Your task to perform on an android device: Clear all items from cart on costco.com. Add sony triple a to the cart on costco.com Image 0: 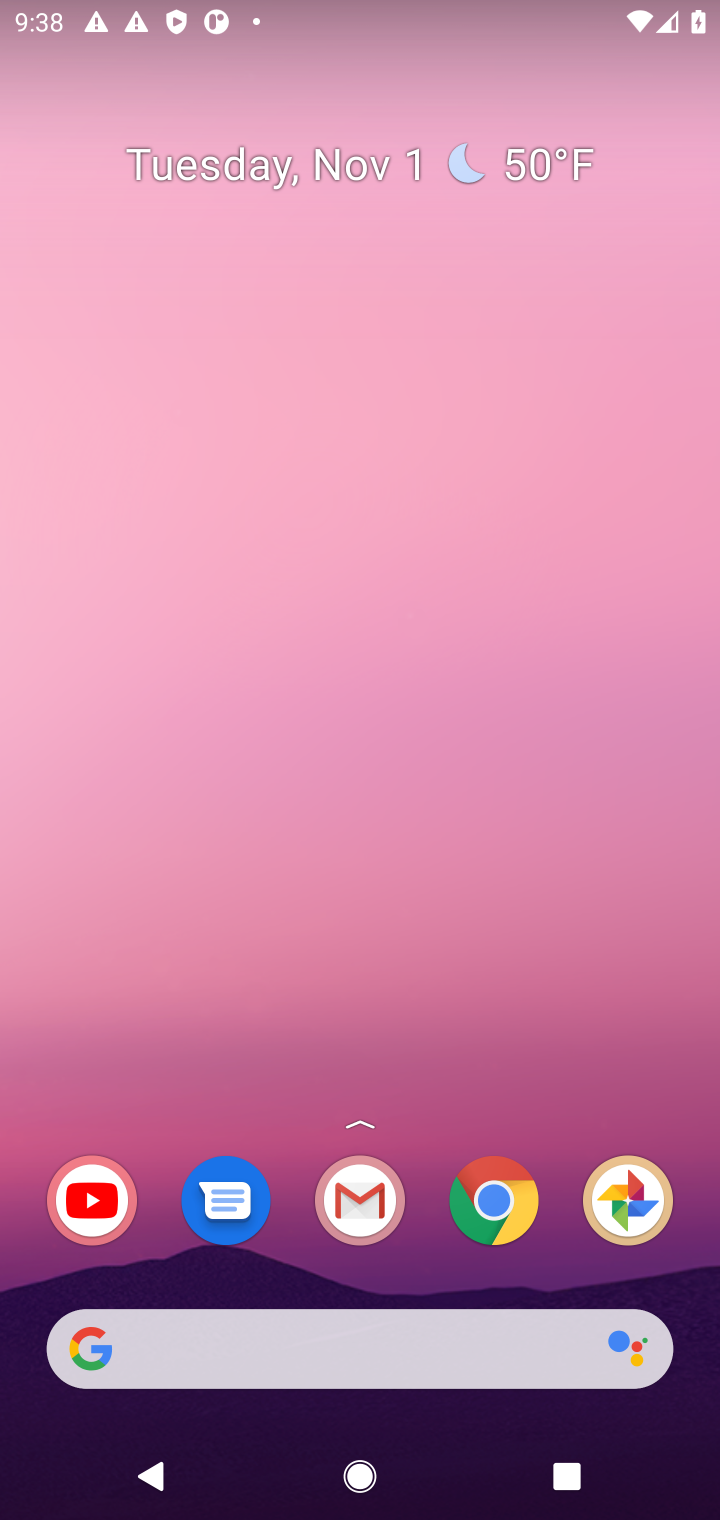
Step 0: click (258, 1355)
Your task to perform on an android device: Clear all items from cart on costco.com. Add sony triple a to the cart on costco.com Image 1: 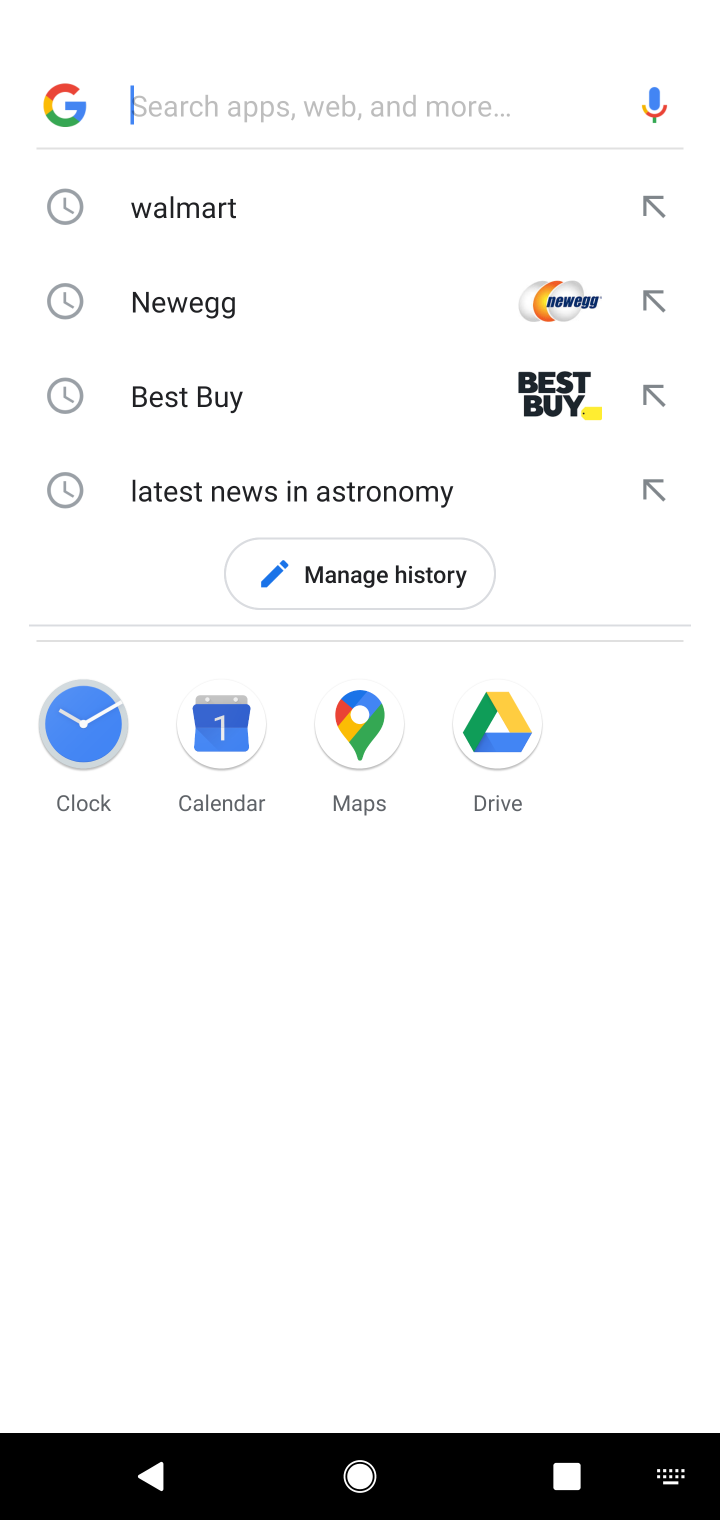
Step 1: type "costco.com"
Your task to perform on an android device: Clear all items from cart on costco.com. Add sony triple a to the cart on costco.com Image 2: 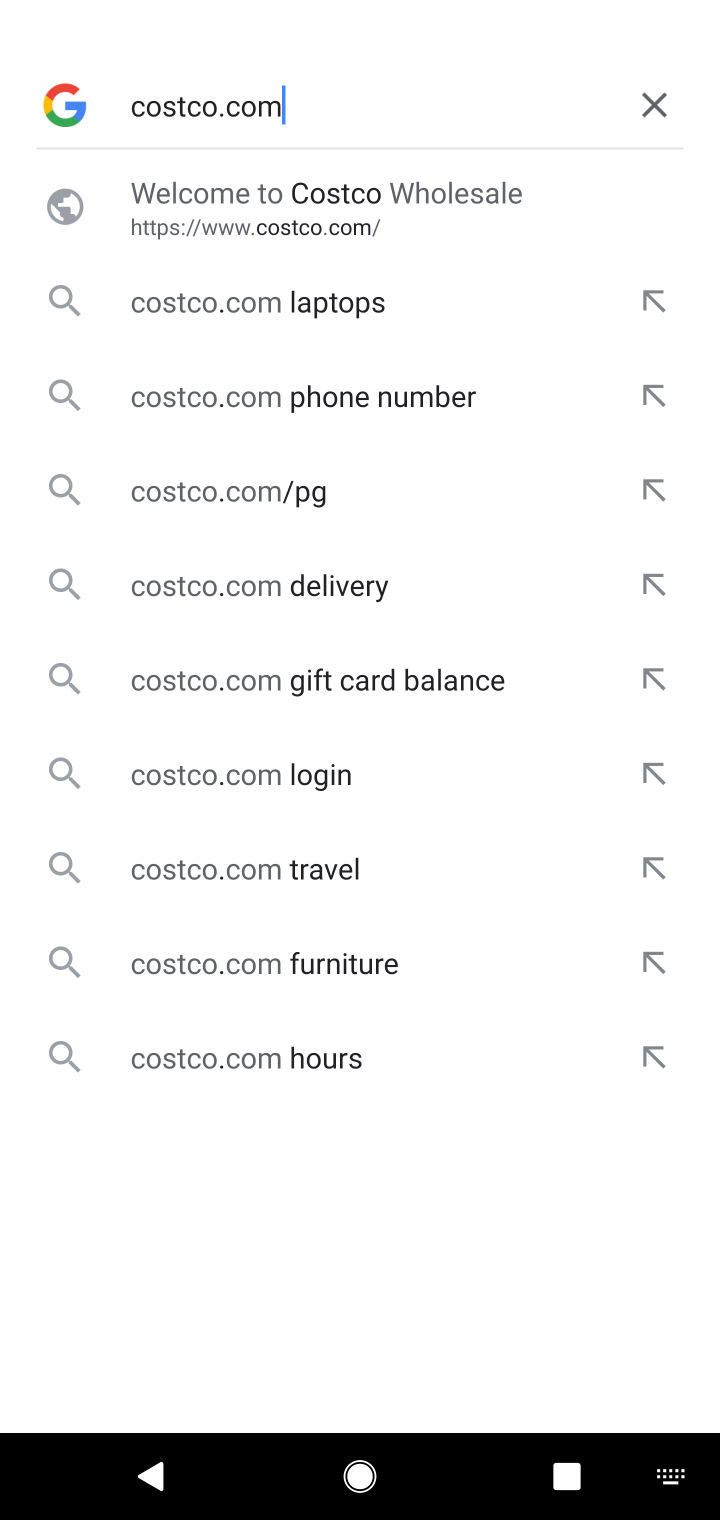
Step 2: click (290, 179)
Your task to perform on an android device: Clear all items from cart on costco.com. Add sony triple a to the cart on costco.com Image 3: 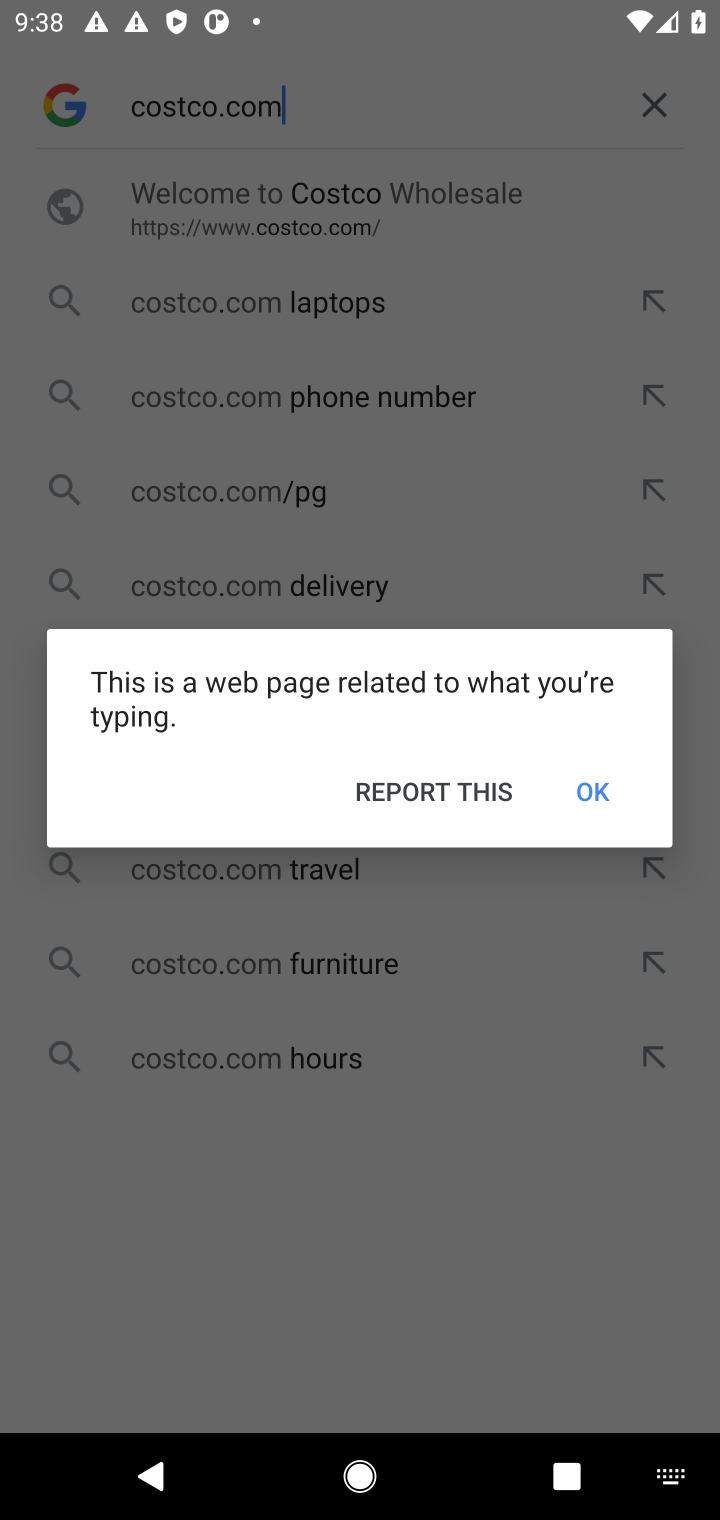
Step 3: click (611, 802)
Your task to perform on an android device: Clear all items from cart on costco.com. Add sony triple a to the cart on costco.com Image 4: 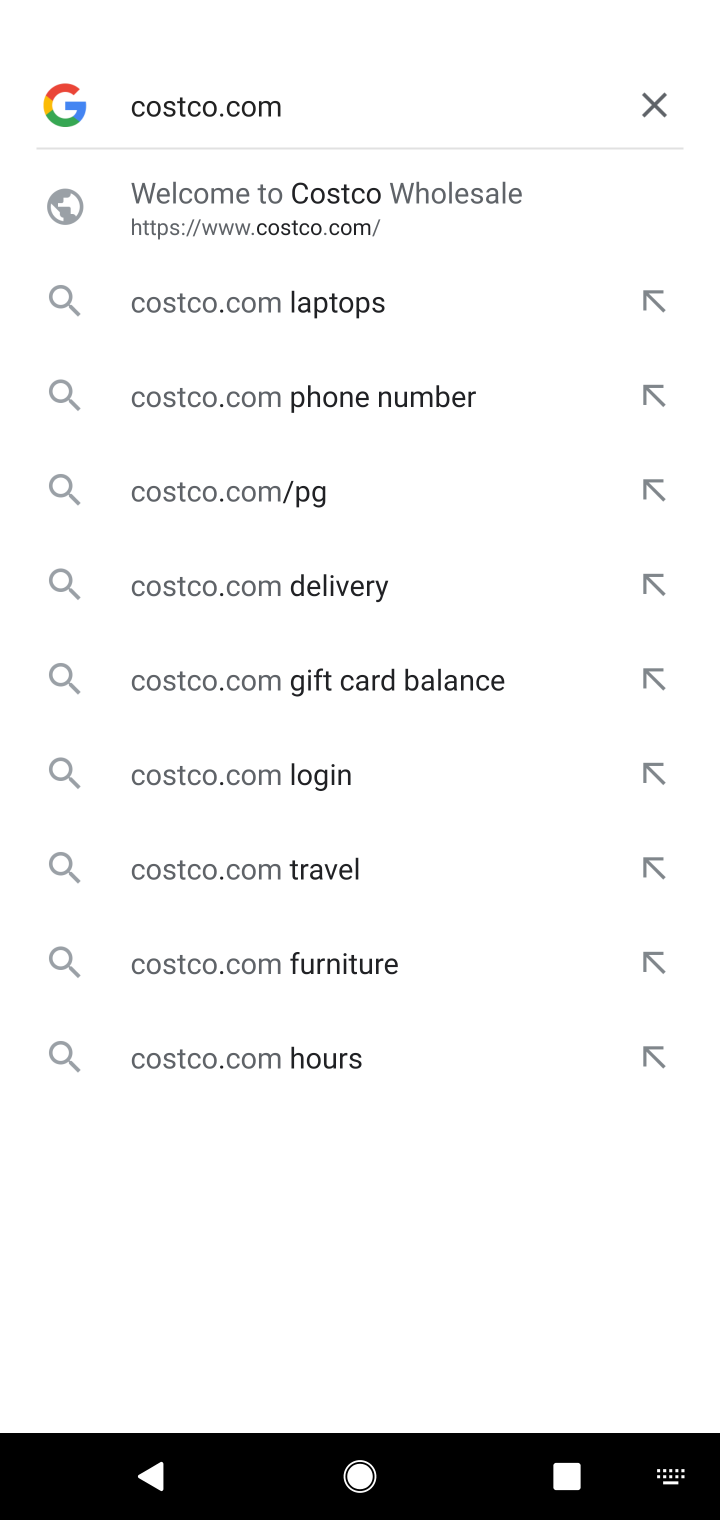
Step 4: click (335, 181)
Your task to perform on an android device: Clear all items from cart on costco.com. Add sony triple a to the cart on costco.com Image 5: 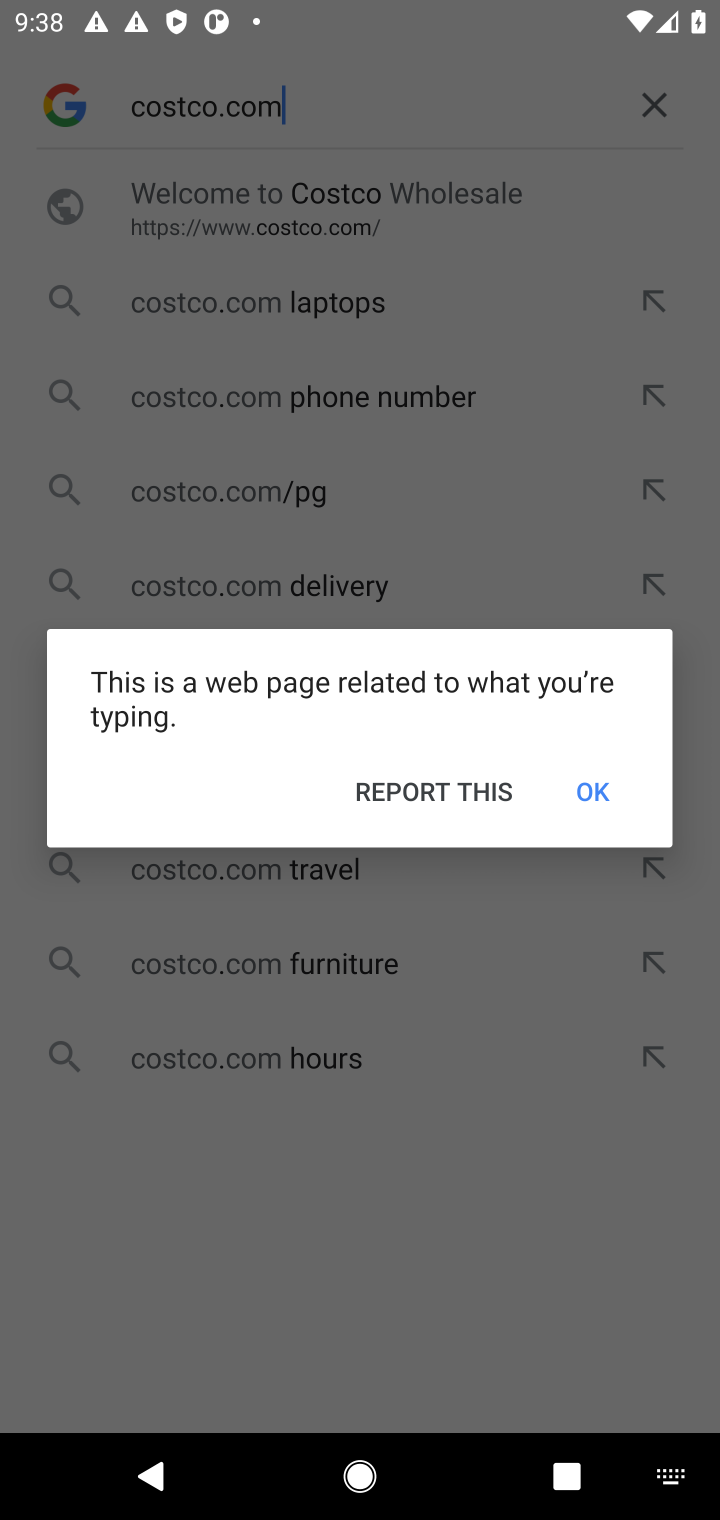
Step 5: click (601, 775)
Your task to perform on an android device: Clear all items from cart on costco.com. Add sony triple a to the cart on costco.com Image 6: 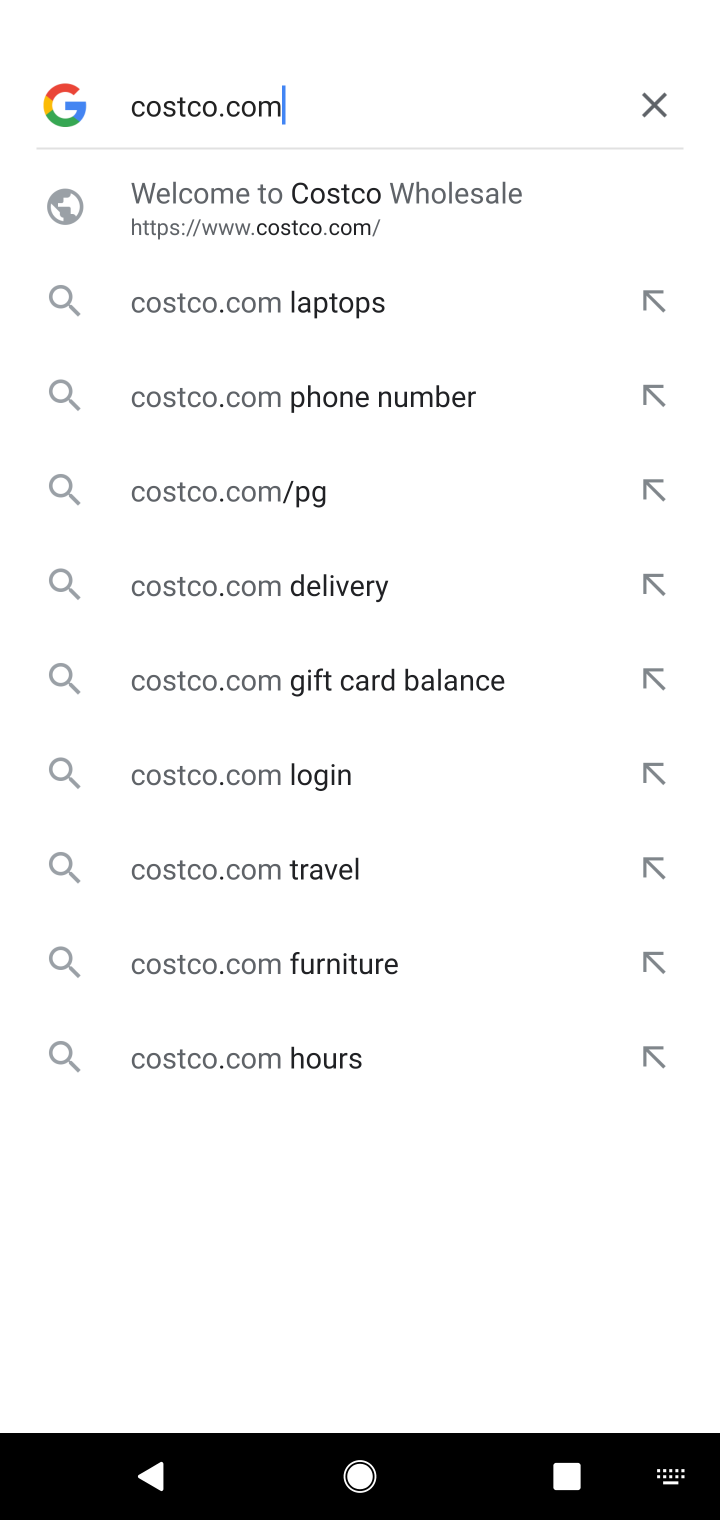
Step 6: click (226, 228)
Your task to perform on an android device: Clear all items from cart on costco.com. Add sony triple a to the cart on costco.com Image 7: 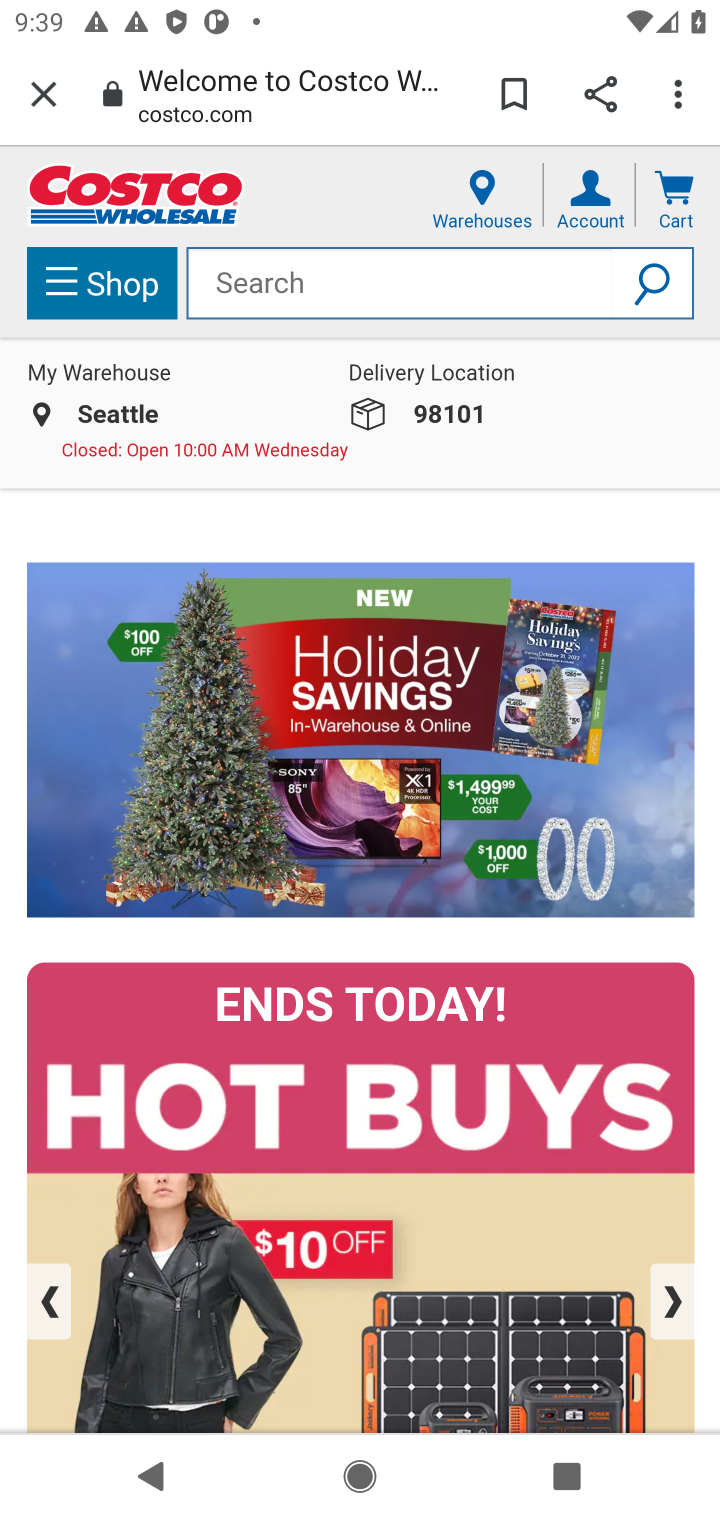
Step 7: click (270, 267)
Your task to perform on an android device: Clear all items from cart on costco.com. Add sony triple a to the cart on costco.com Image 8: 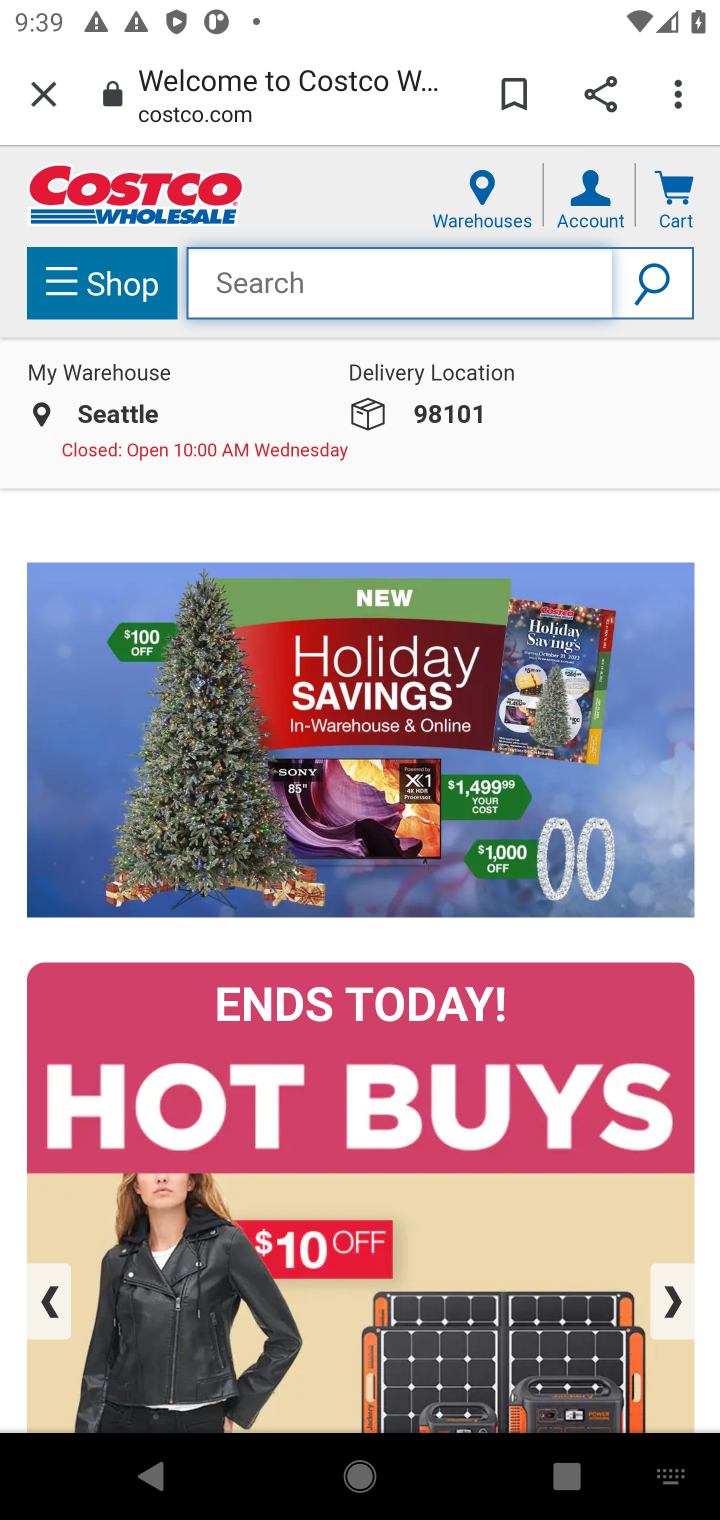
Step 8: click (302, 276)
Your task to perform on an android device: Clear all items from cart on costco.com. Add sony triple a to the cart on costco.com Image 9: 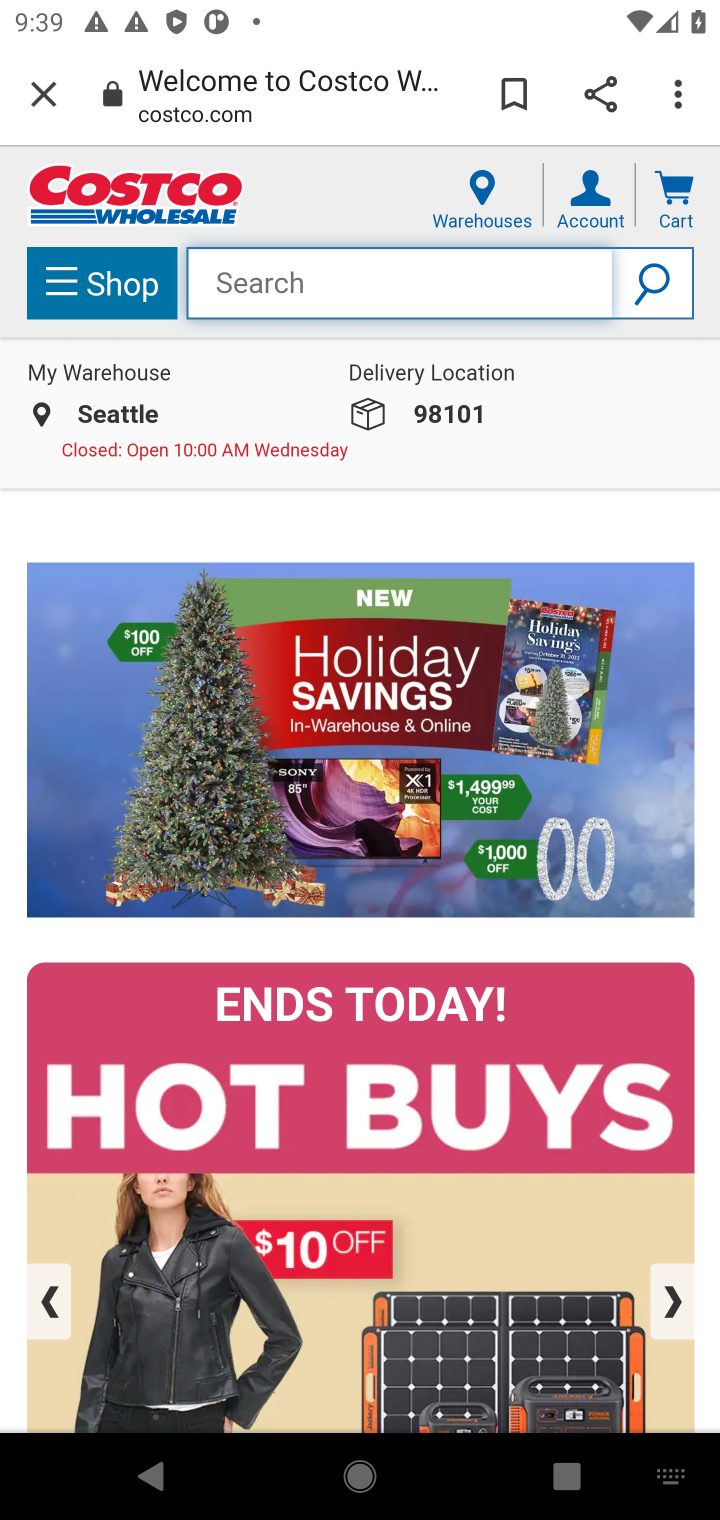
Step 9: type "sony triple a "
Your task to perform on an android device: Clear all items from cart on costco.com. Add sony triple a to the cart on costco.com Image 10: 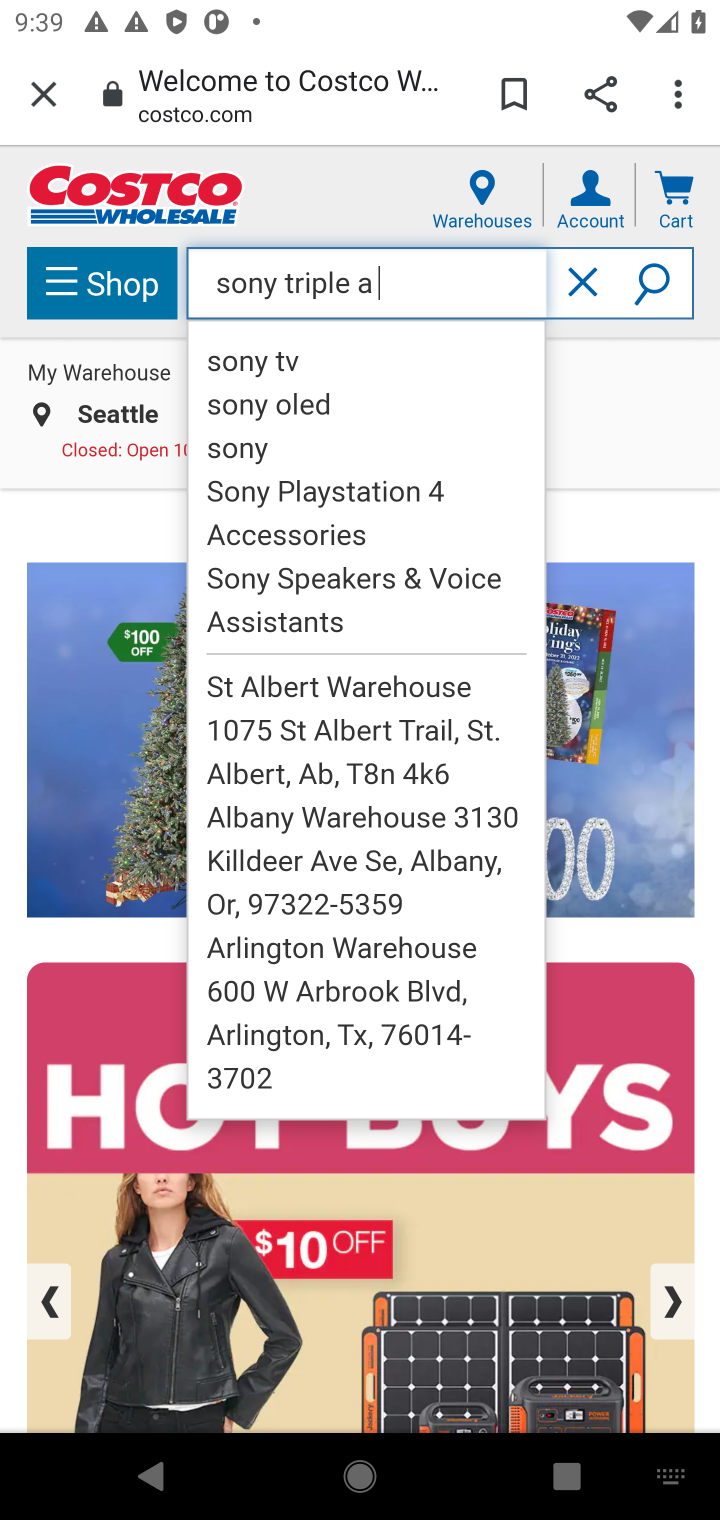
Step 10: click (659, 290)
Your task to perform on an android device: Clear all items from cart on costco.com. Add sony triple a to the cart on costco.com Image 11: 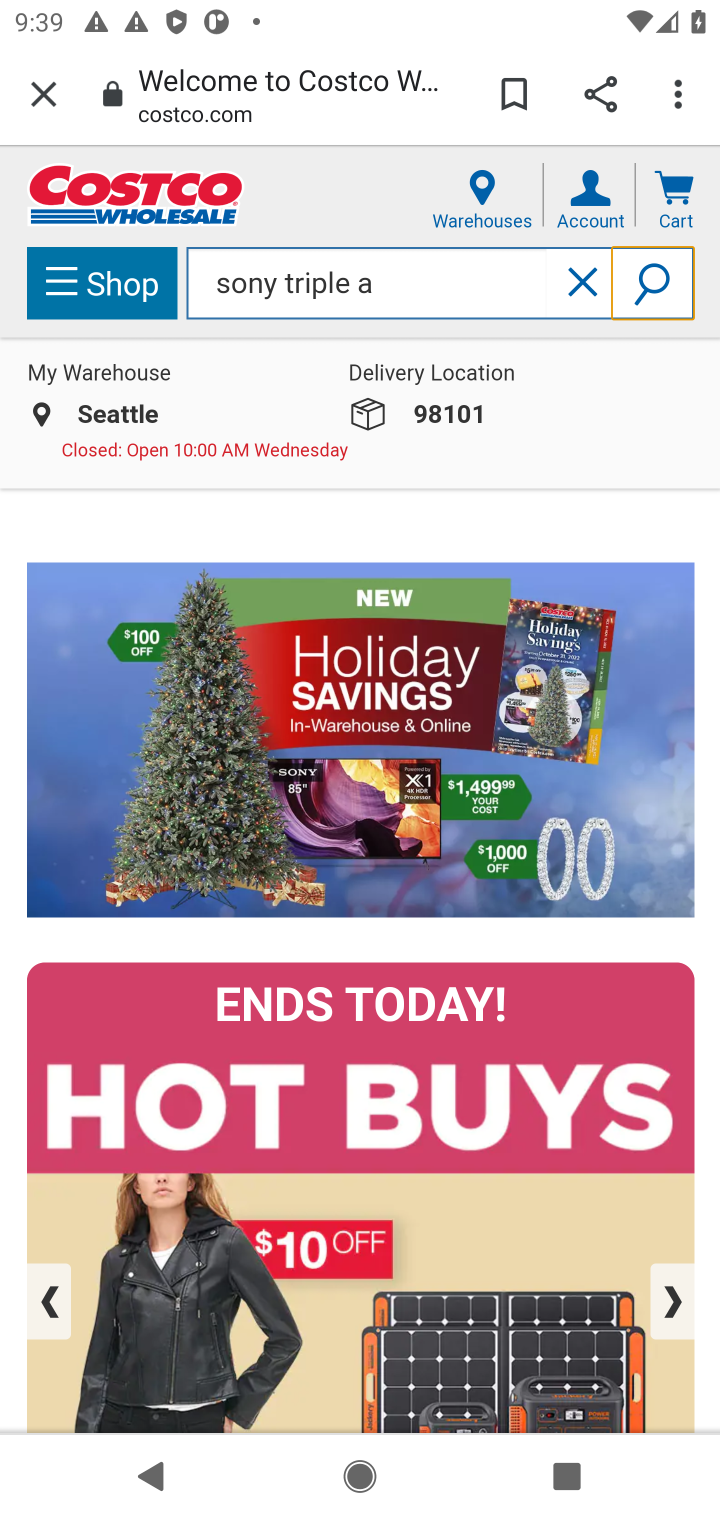
Step 11: click (659, 290)
Your task to perform on an android device: Clear all items from cart on costco.com. Add sony triple a to the cart on costco.com Image 12: 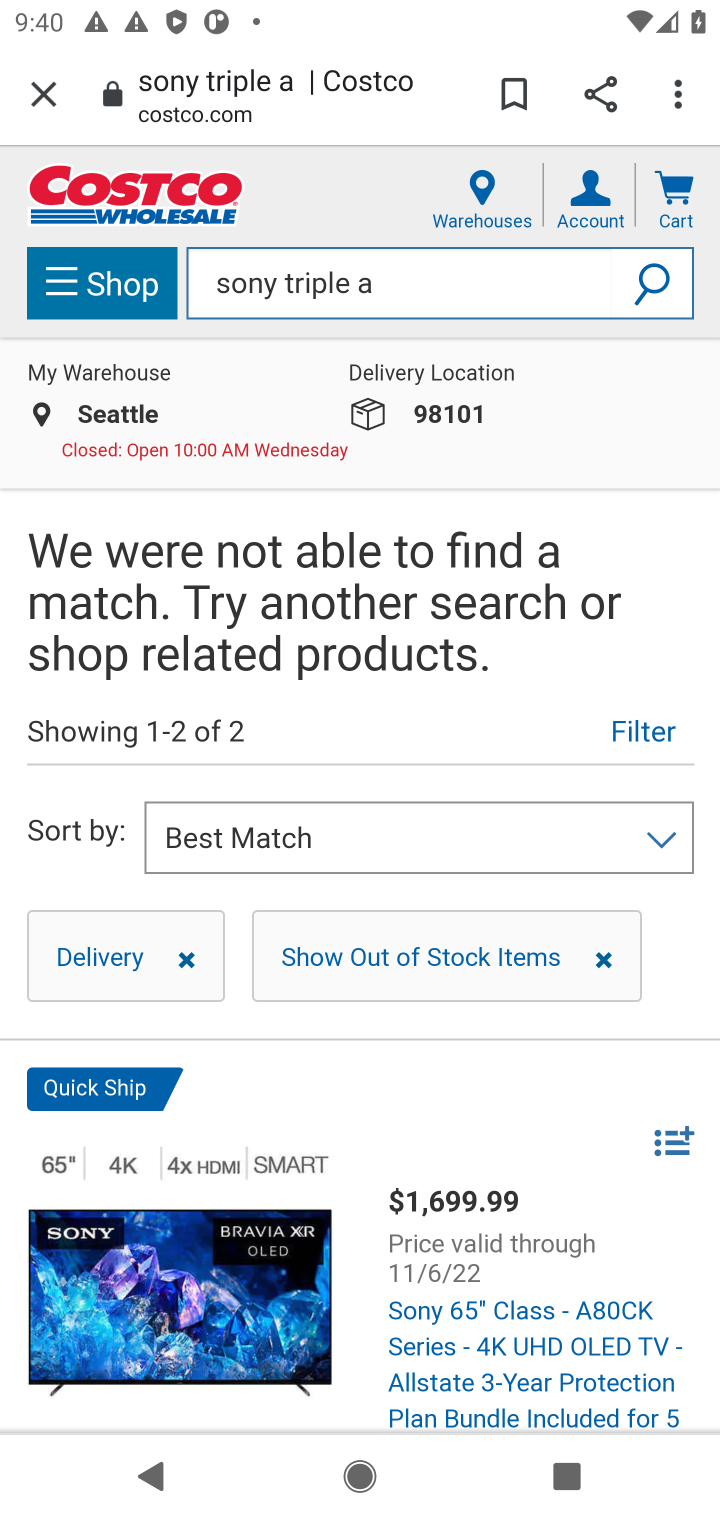
Step 12: click (500, 1240)
Your task to perform on an android device: Clear all items from cart on costco.com. Add sony triple a to the cart on costco.com Image 13: 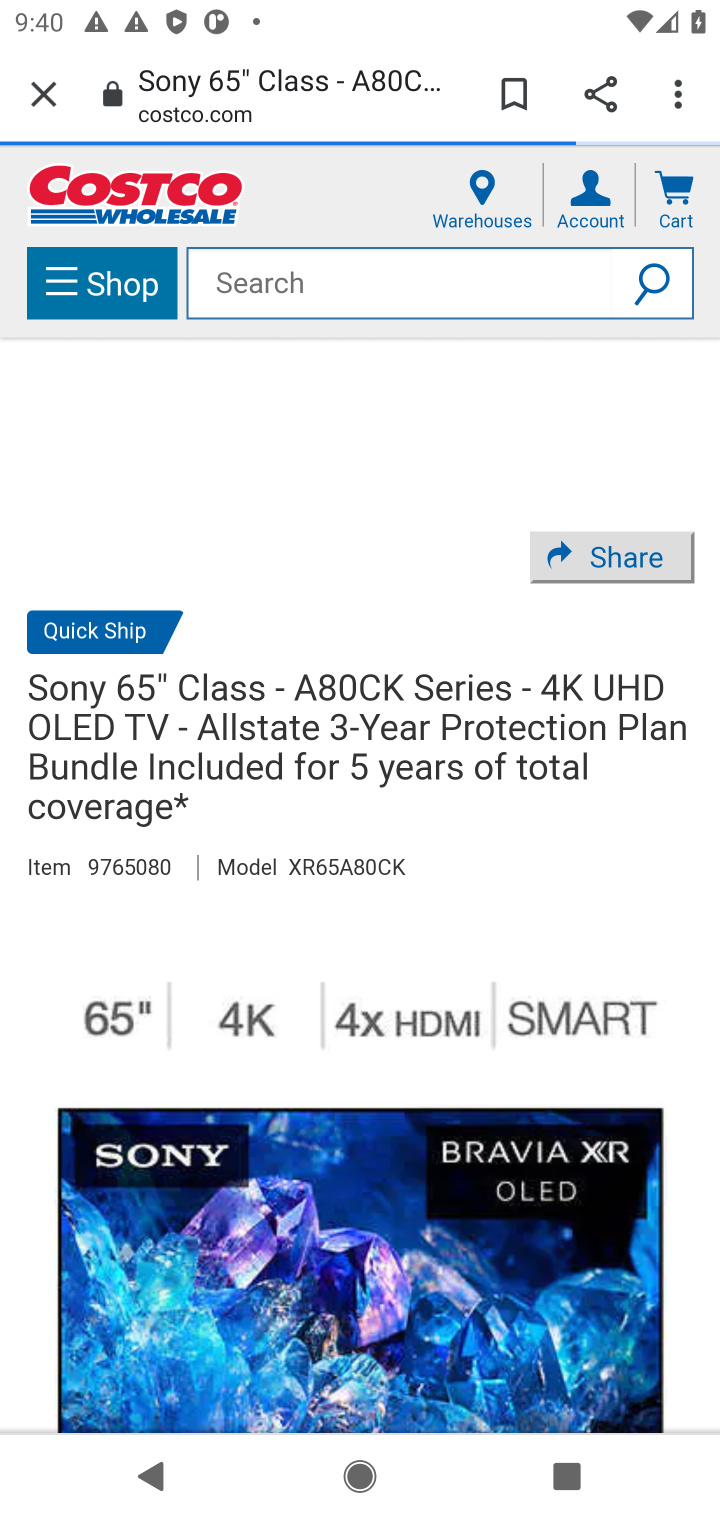
Step 13: drag from (466, 878) to (449, 493)
Your task to perform on an android device: Clear all items from cart on costco.com. Add sony triple a to the cart on costco.com Image 14: 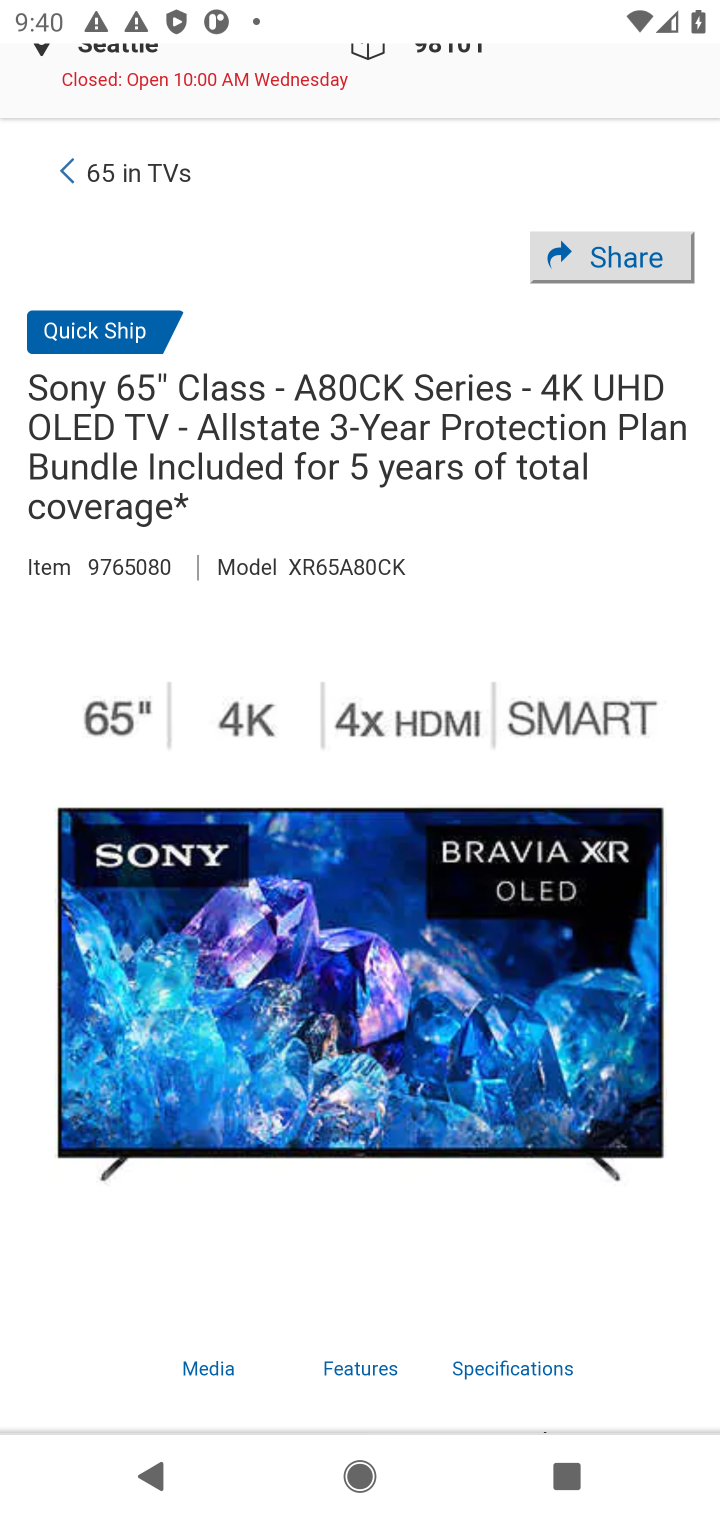
Step 14: drag from (376, 1138) to (362, 583)
Your task to perform on an android device: Clear all items from cart on costco.com. Add sony triple a to the cart on costco.com Image 15: 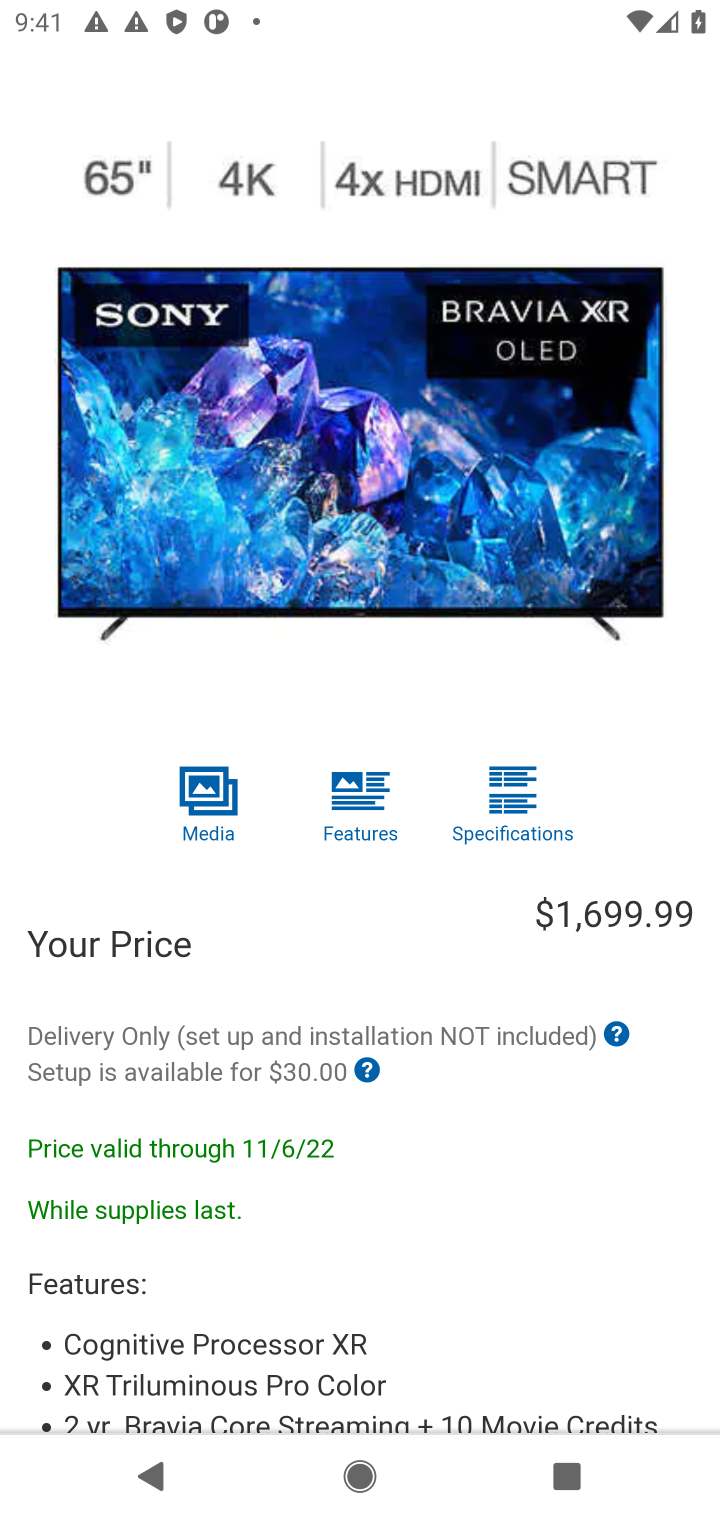
Step 15: drag from (376, 1214) to (388, 587)
Your task to perform on an android device: Clear all items from cart on costco.com. Add sony triple a to the cart on costco.com Image 16: 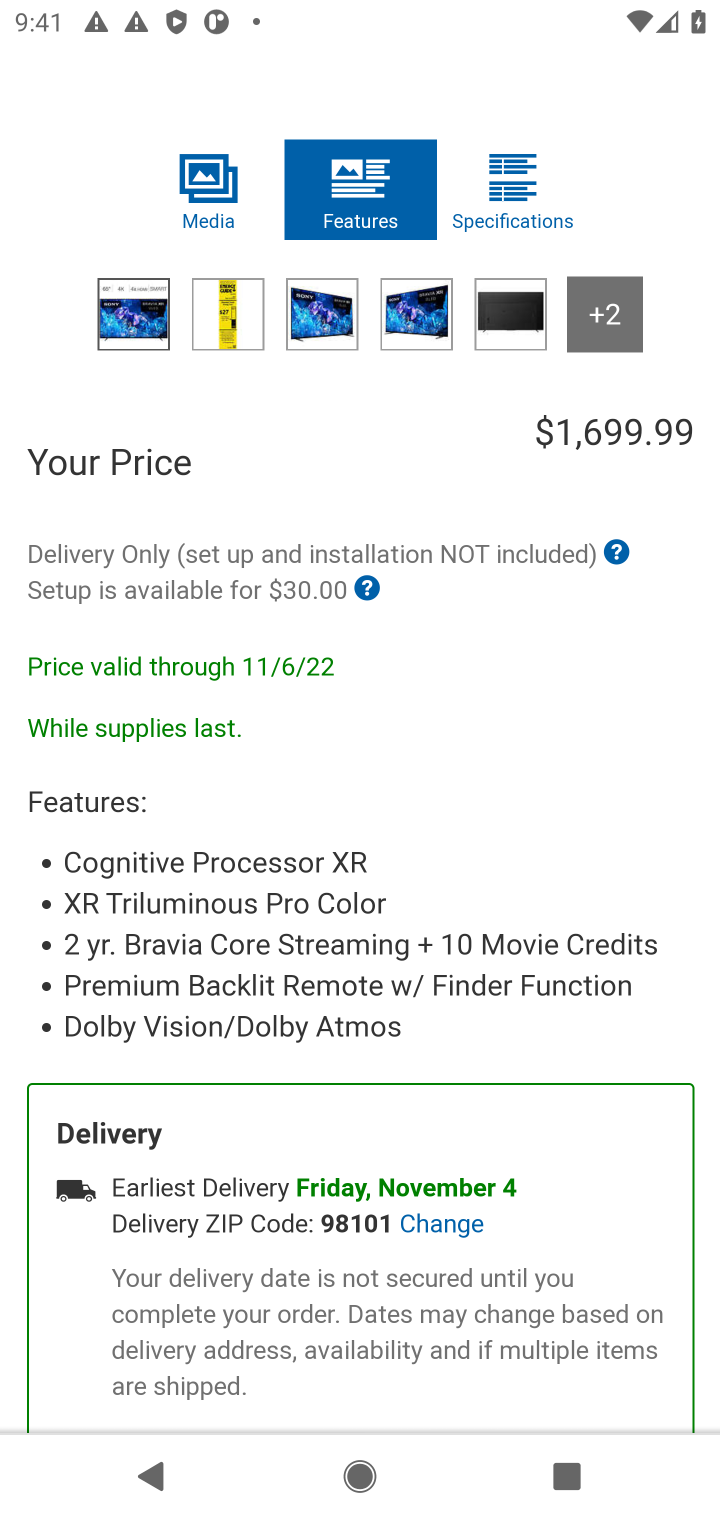
Step 16: drag from (348, 1012) to (386, 679)
Your task to perform on an android device: Clear all items from cart on costco.com. Add sony triple a to the cart on costco.com Image 17: 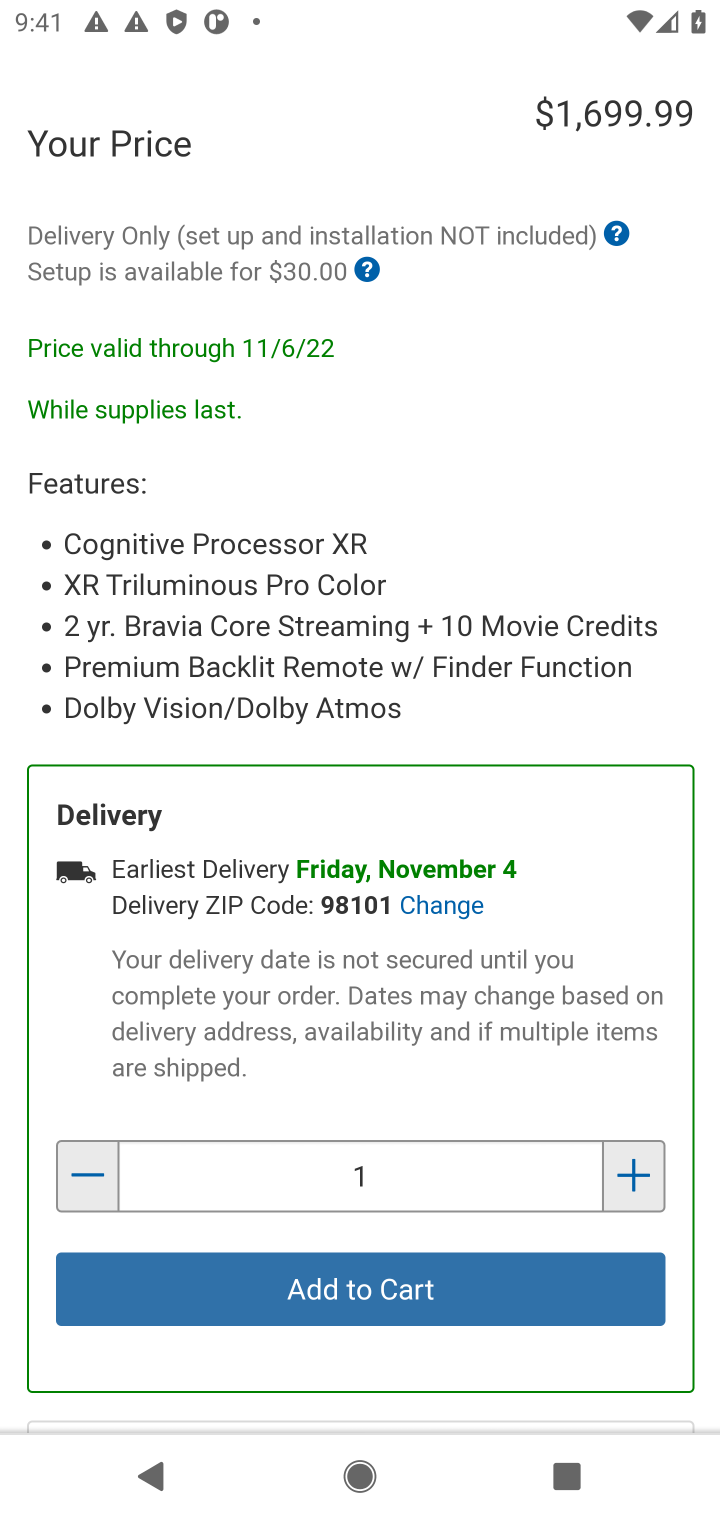
Step 17: click (319, 1290)
Your task to perform on an android device: Clear all items from cart on costco.com. Add sony triple a to the cart on costco.com Image 18: 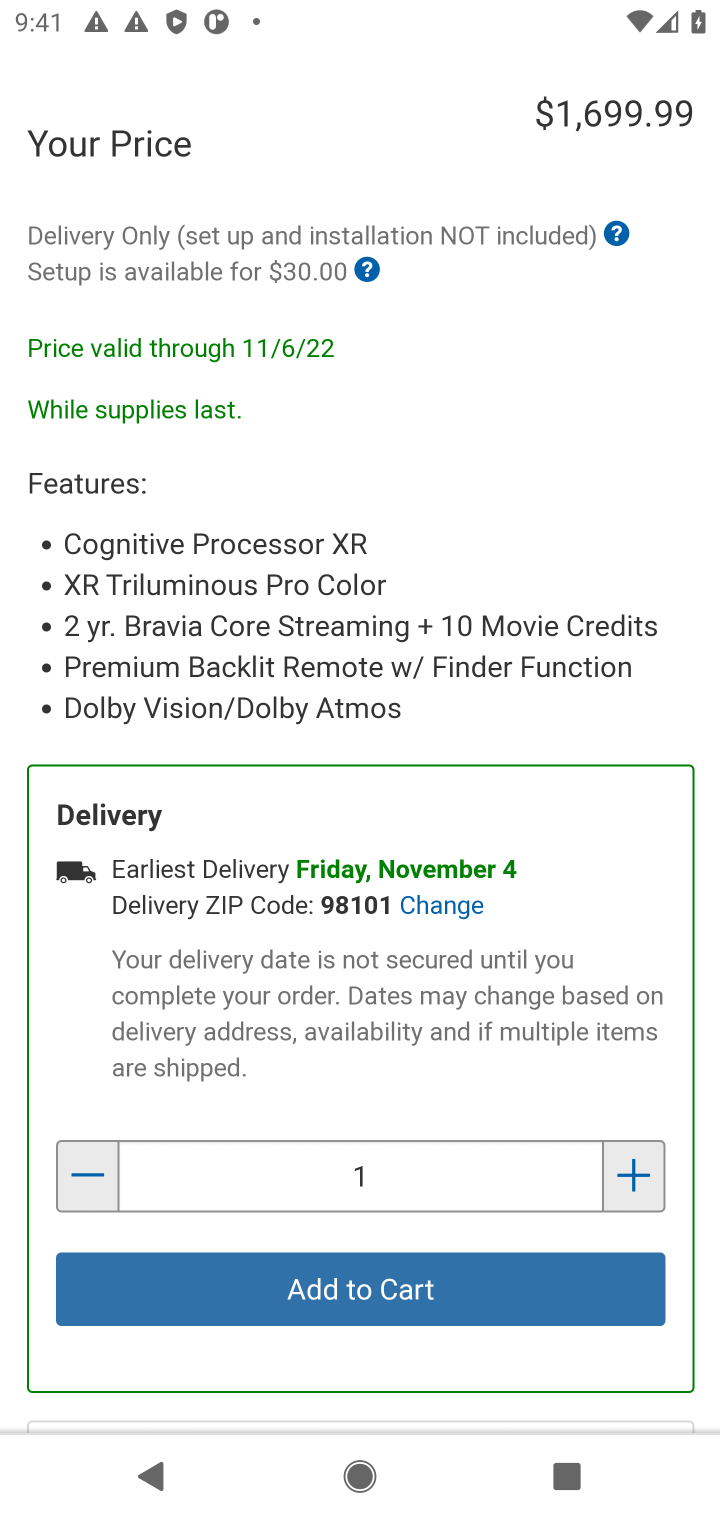
Step 18: drag from (498, 634) to (536, 423)
Your task to perform on an android device: Clear all items from cart on costco.com. Add sony triple a to the cart on costco.com Image 19: 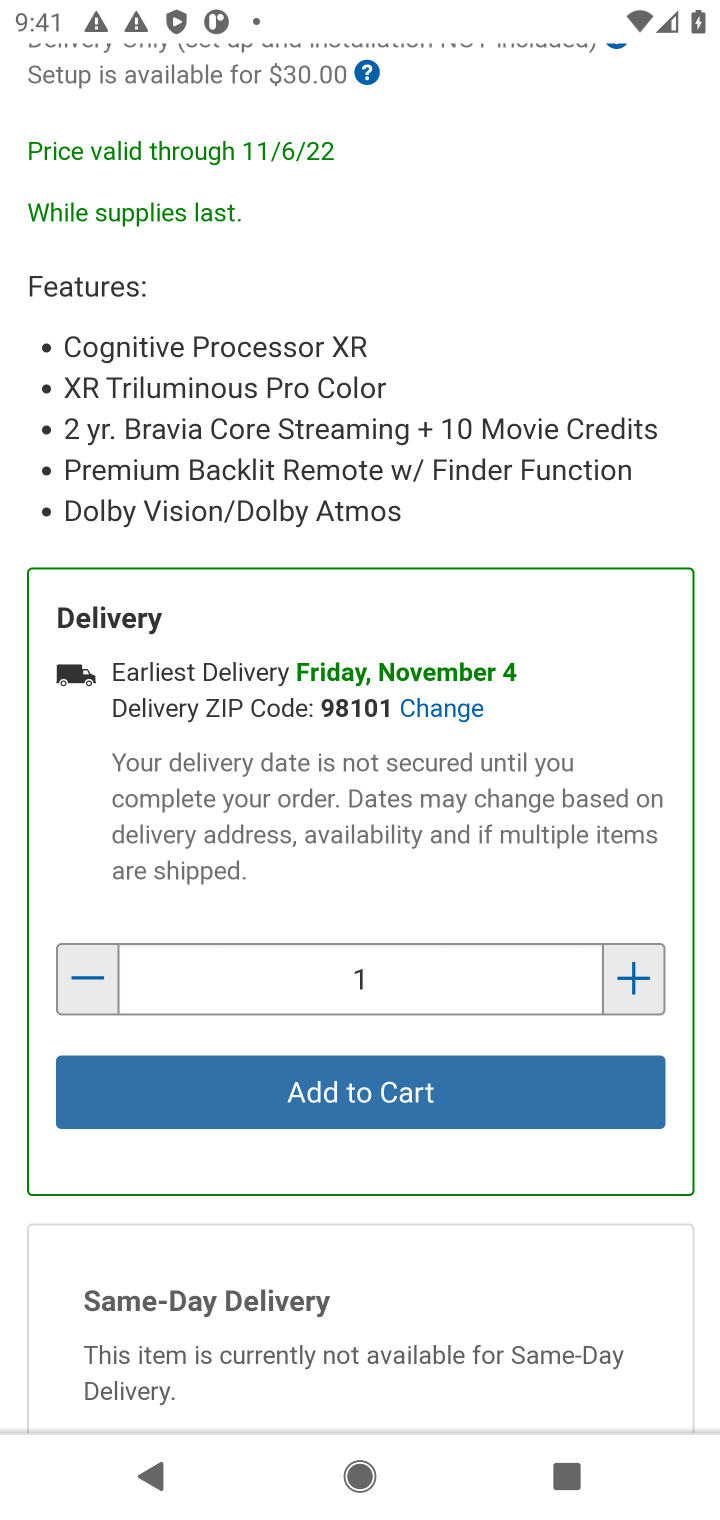
Step 19: drag from (435, 677) to (470, 339)
Your task to perform on an android device: Clear all items from cart on costco.com. Add sony triple a to the cart on costco.com Image 20: 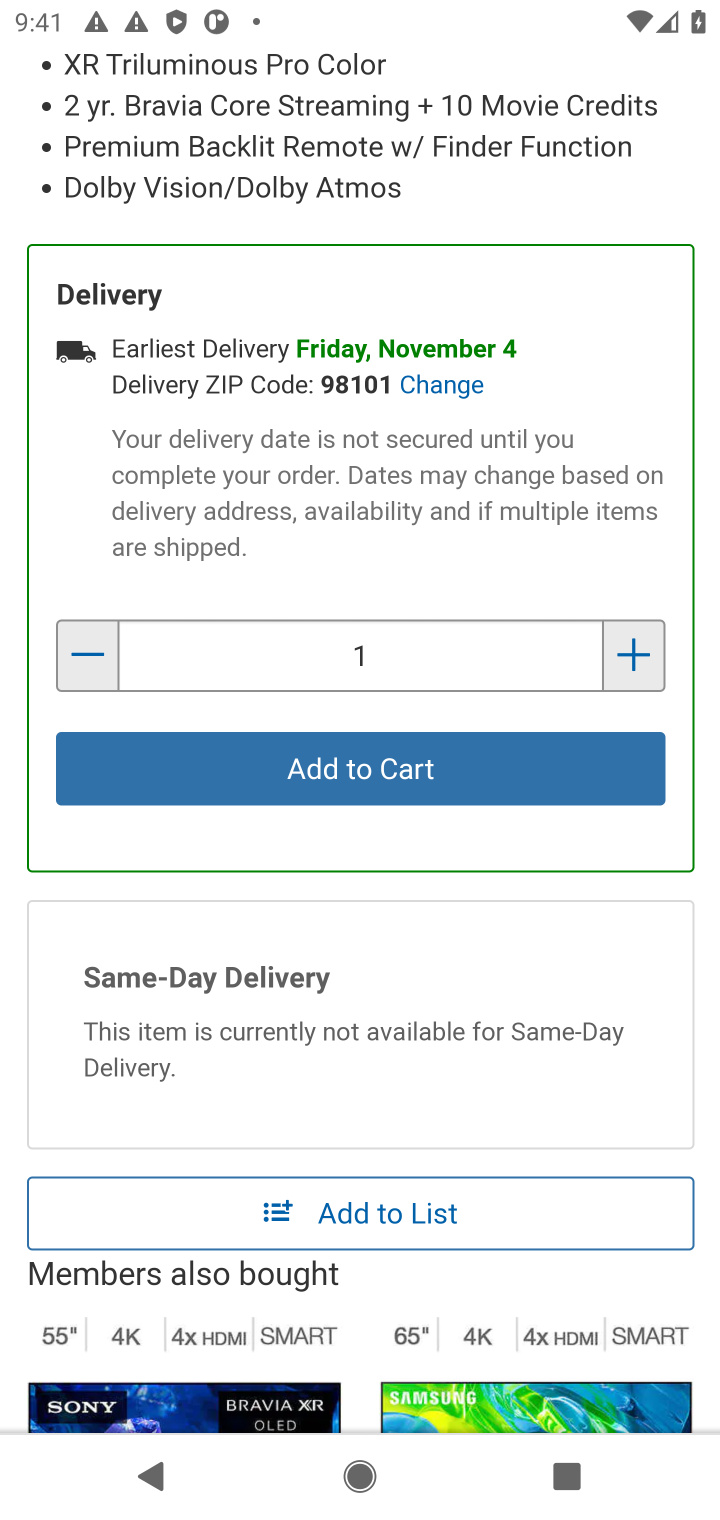
Step 20: click (397, 1074)
Your task to perform on an android device: Clear all items from cart on costco.com. Add sony triple a to the cart on costco.com Image 21: 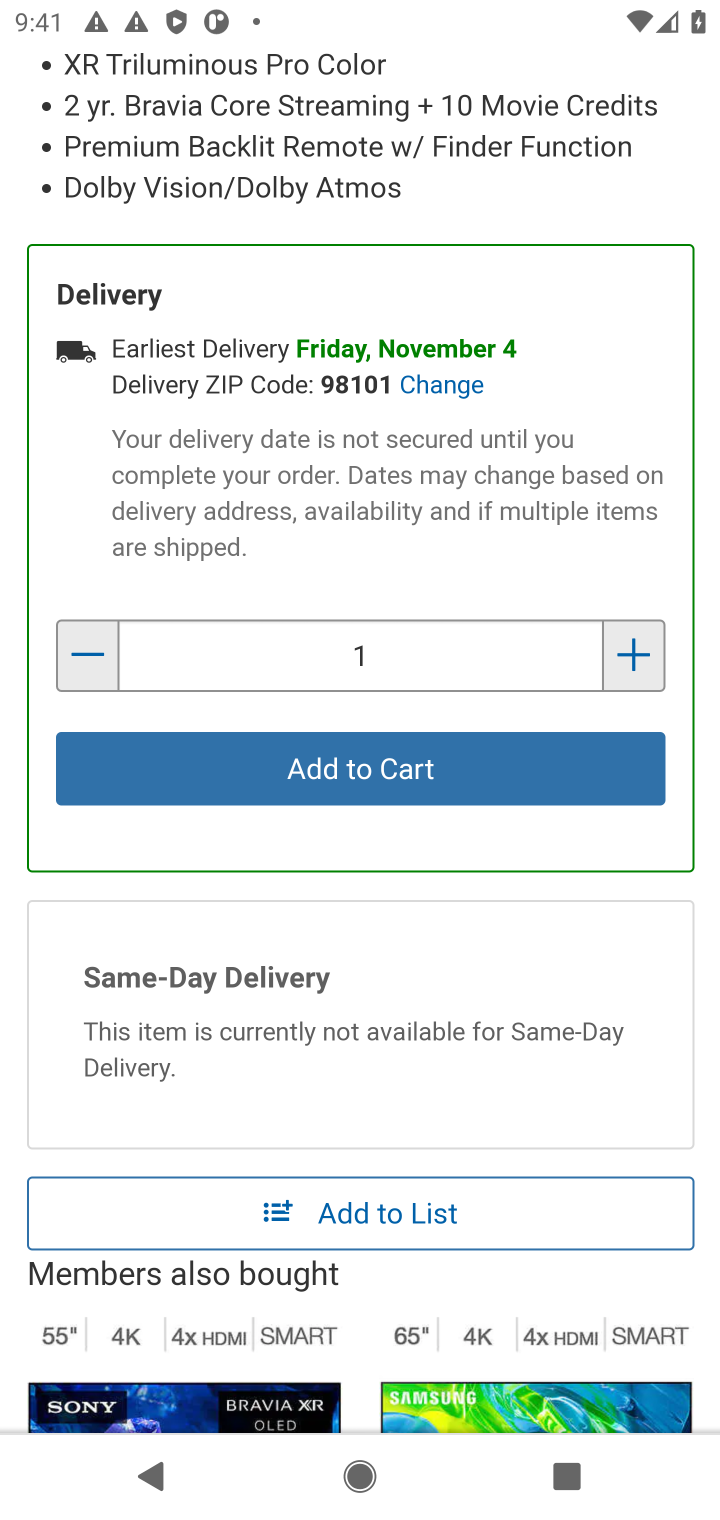
Step 21: click (542, 768)
Your task to perform on an android device: Clear all items from cart on costco.com. Add sony triple a to the cart on costco.com Image 22: 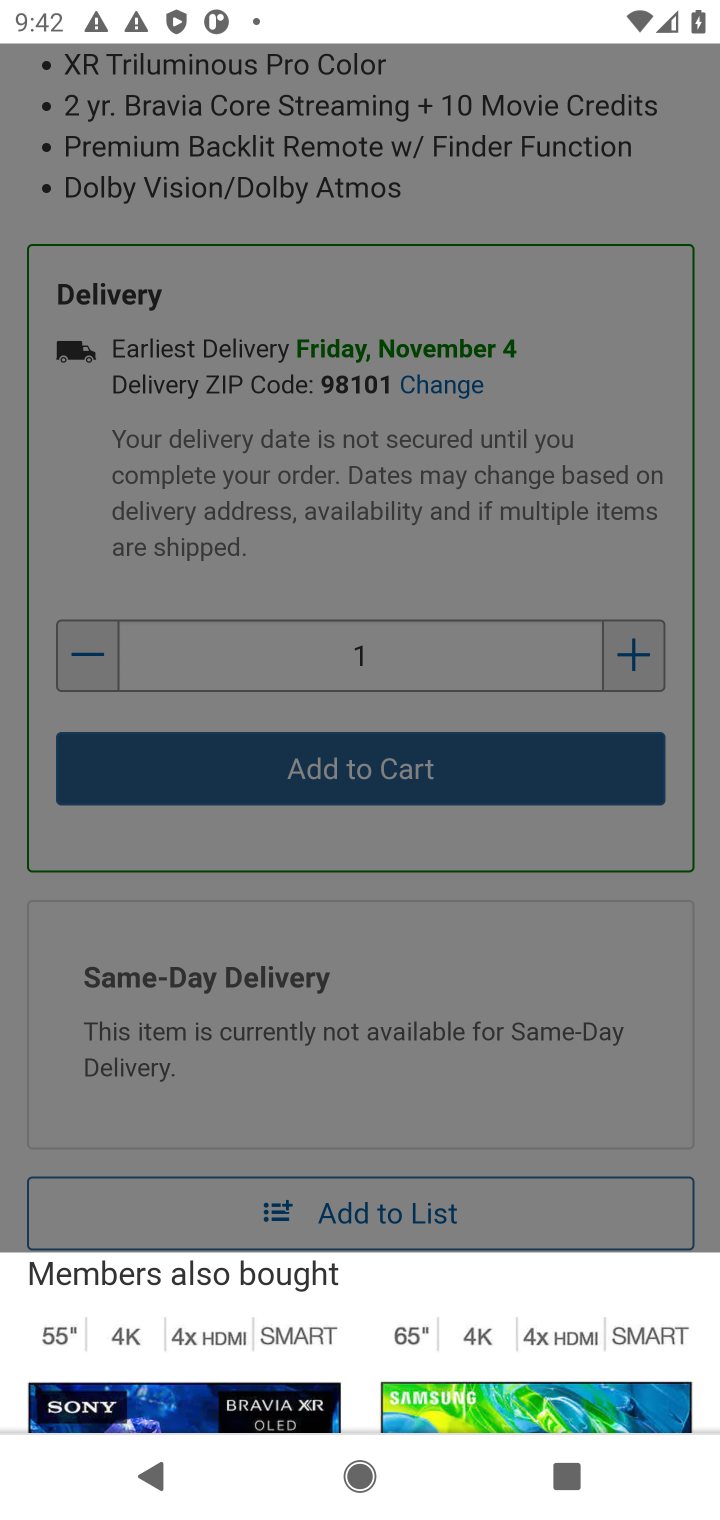
Step 22: task complete